Your task to perform on an android device: Search for pizza restaurants on Maps Image 0: 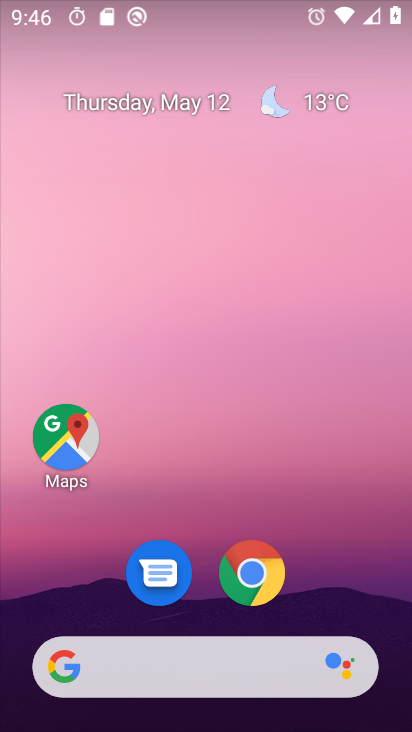
Step 0: click (37, 416)
Your task to perform on an android device: Search for pizza restaurants on Maps Image 1: 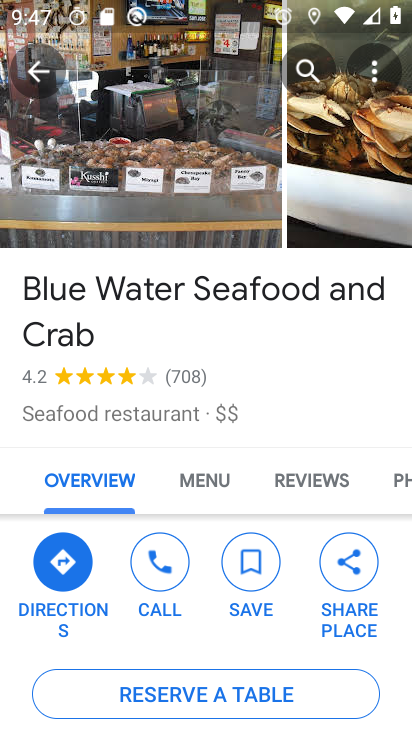
Step 1: press back button
Your task to perform on an android device: Search for pizza restaurants on Maps Image 2: 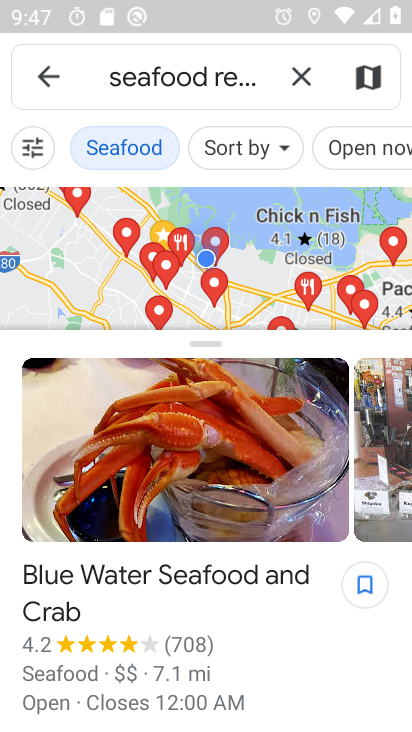
Step 2: click (301, 75)
Your task to perform on an android device: Search for pizza restaurants on Maps Image 3: 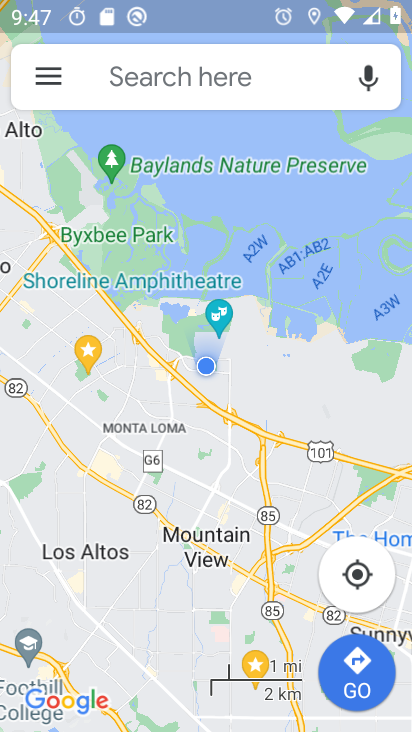
Step 3: click (127, 73)
Your task to perform on an android device: Search for pizza restaurants on Maps Image 4: 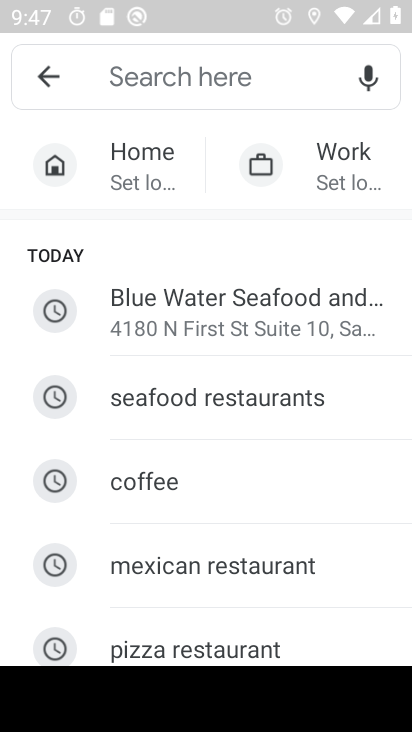
Step 4: type " pizza restaurants "
Your task to perform on an android device: Search for pizza restaurants on Maps Image 5: 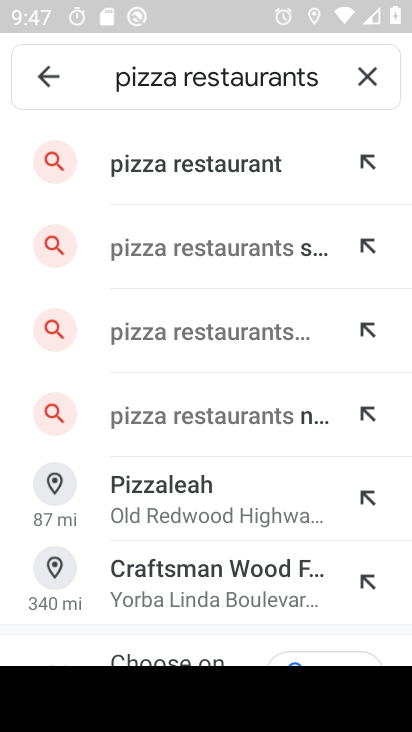
Step 5: click (214, 164)
Your task to perform on an android device: Search for pizza restaurants on Maps Image 6: 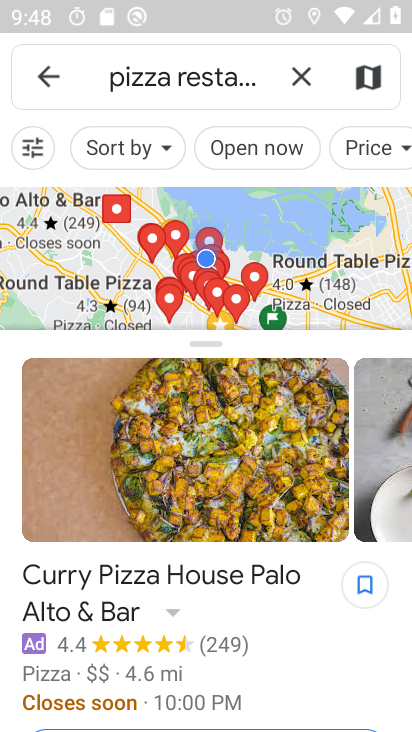
Step 6: task complete